Your task to perform on an android device: Go to notification settings Image 0: 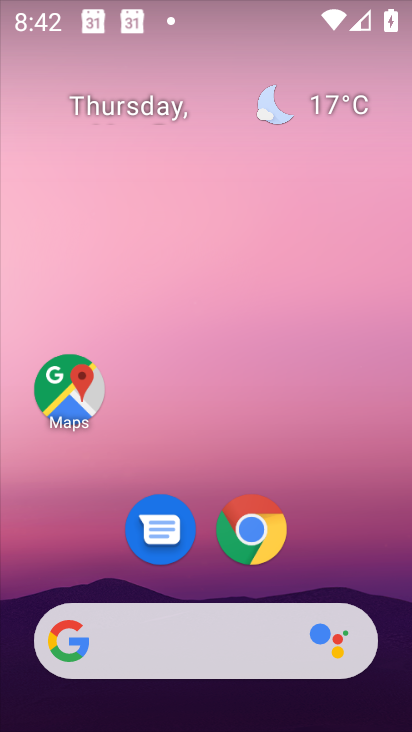
Step 0: drag from (323, 496) to (285, 50)
Your task to perform on an android device: Go to notification settings Image 1: 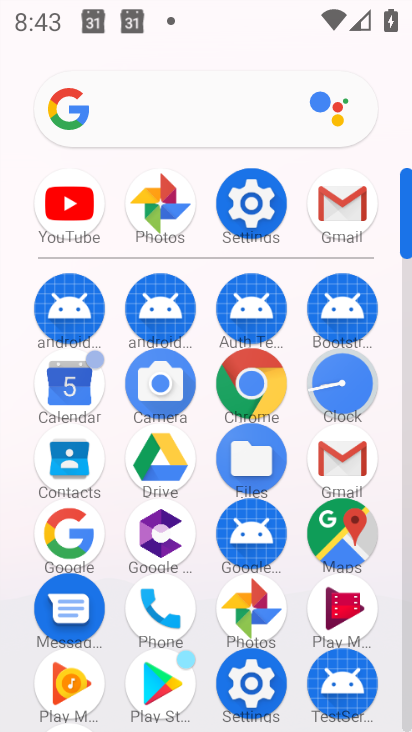
Step 1: drag from (320, 563) to (281, 144)
Your task to perform on an android device: Go to notification settings Image 2: 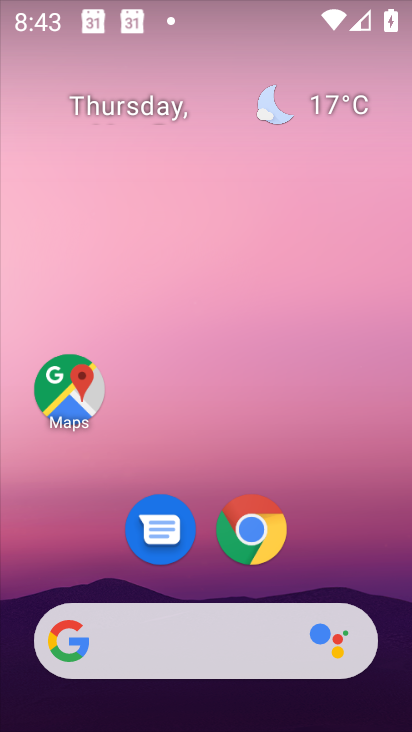
Step 2: click (262, 172)
Your task to perform on an android device: Go to notification settings Image 3: 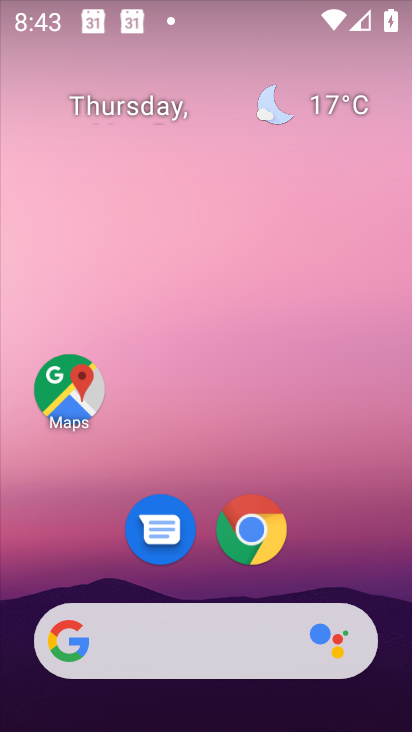
Step 3: drag from (320, 546) to (227, 68)
Your task to perform on an android device: Go to notification settings Image 4: 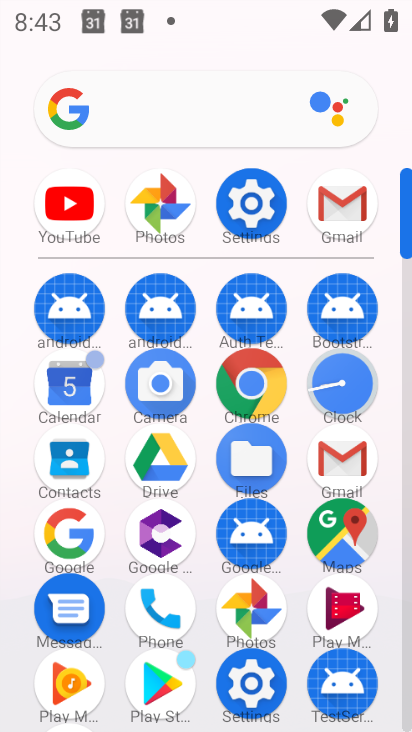
Step 4: click (245, 209)
Your task to perform on an android device: Go to notification settings Image 5: 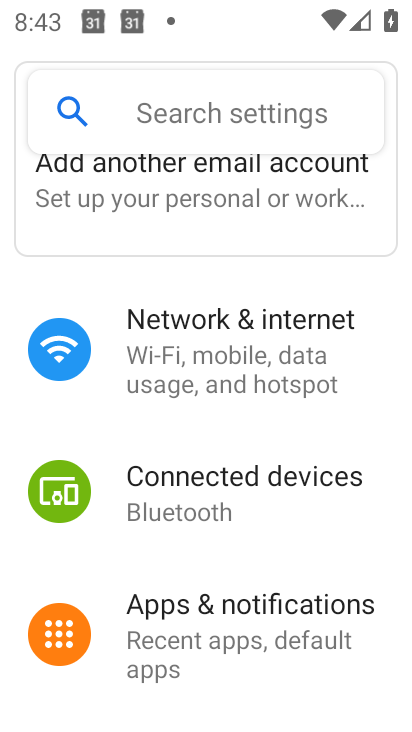
Step 5: click (257, 604)
Your task to perform on an android device: Go to notification settings Image 6: 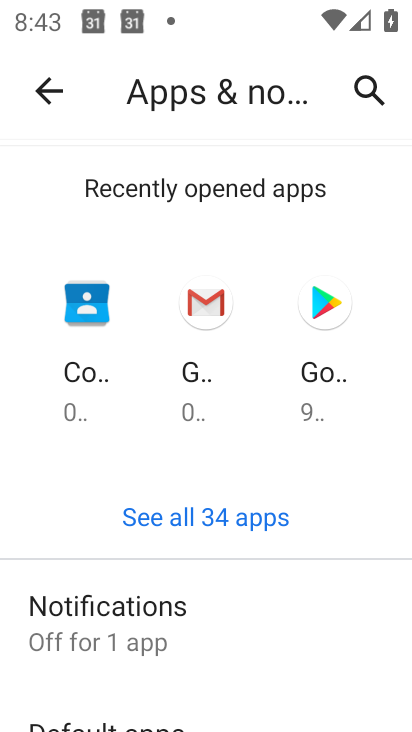
Step 6: task complete